Your task to perform on an android device: change the clock display to analog Image 0: 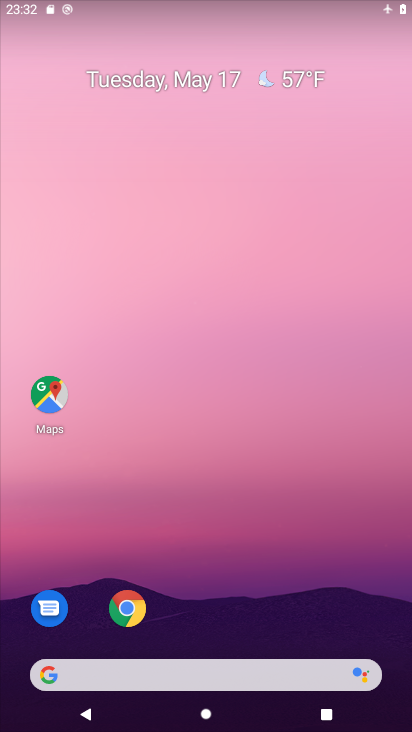
Step 0: drag from (226, 630) to (244, 113)
Your task to perform on an android device: change the clock display to analog Image 1: 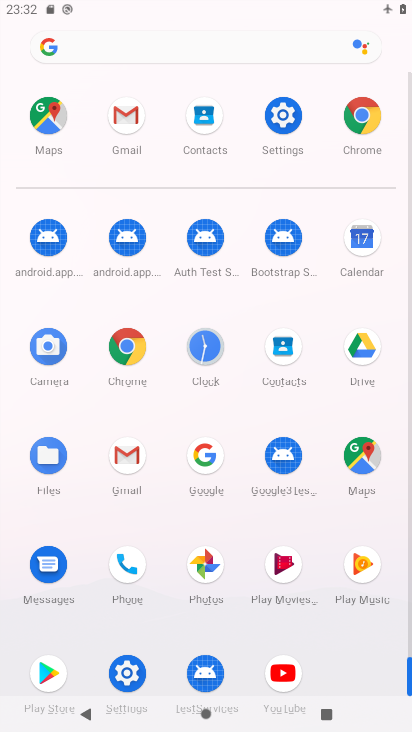
Step 1: click (204, 363)
Your task to perform on an android device: change the clock display to analog Image 2: 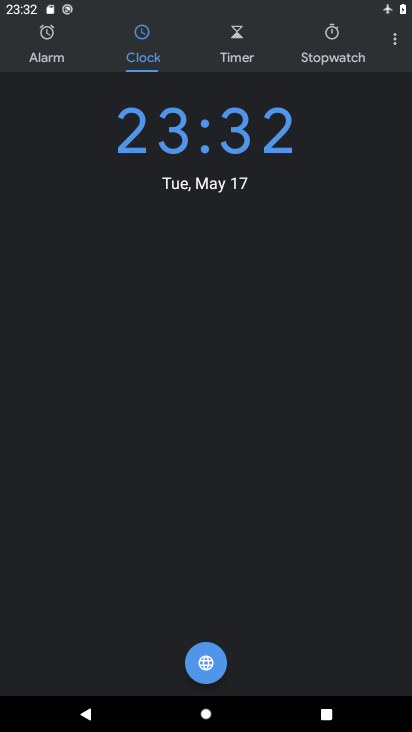
Step 2: click (393, 42)
Your task to perform on an android device: change the clock display to analog Image 3: 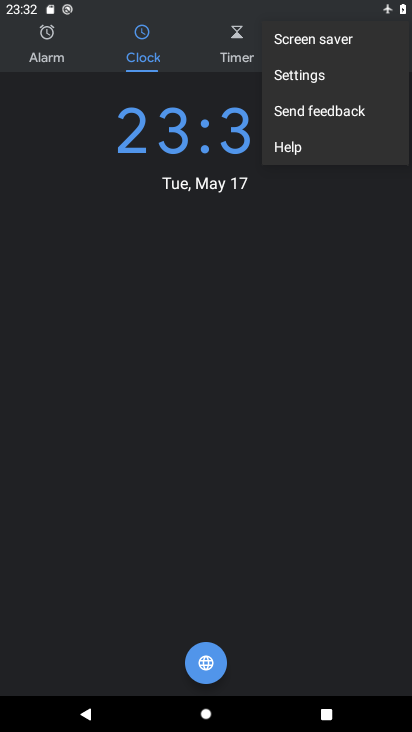
Step 3: click (311, 80)
Your task to perform on an android device: change the clock display to analog Image 4: 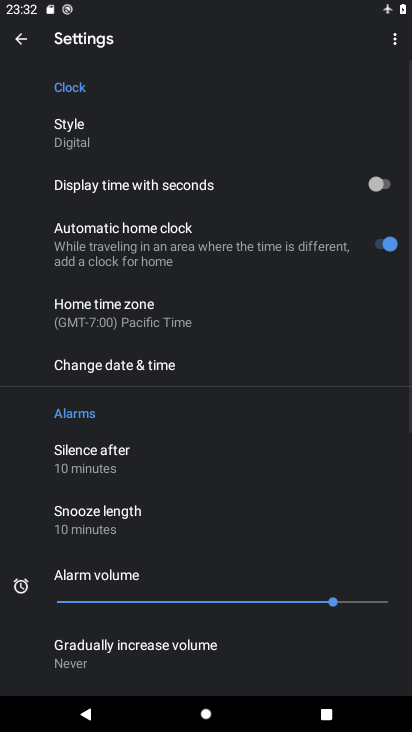
Step 4: click (79, 142)
Your task to perform on an android device: change the clock display to analog Image 5: 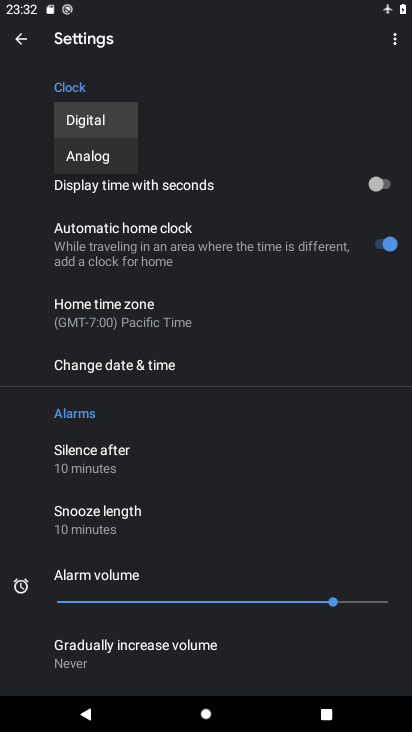
Step 5: click (86, 163)
Your task to perform on an android device: change the clock display to analog Image 6: 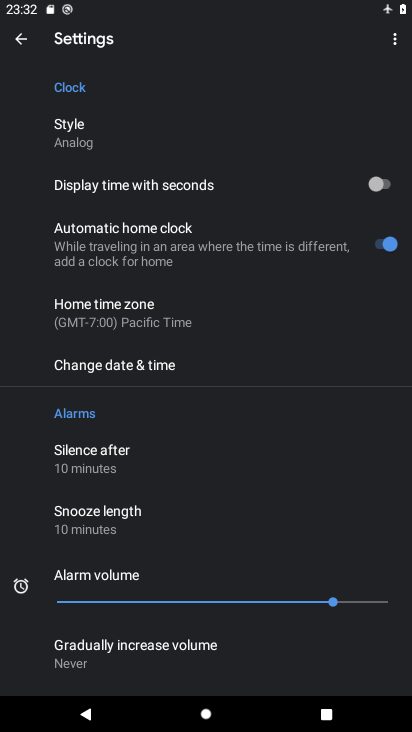
Step 6: task complete